Your task to perform on an android device: check google app version Image 0: 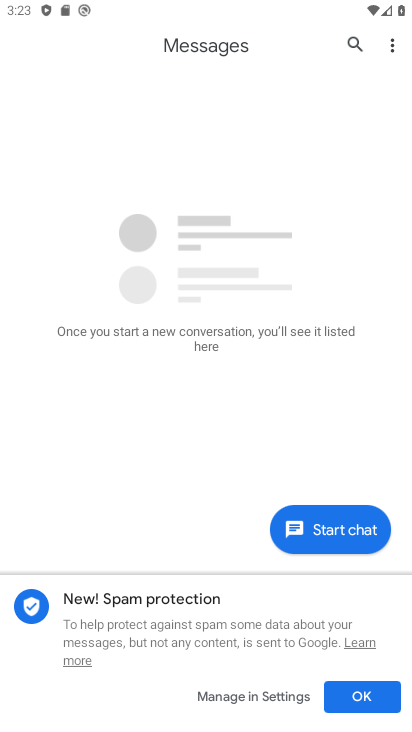
Step 0: press home button
Your task to perform on an android device: check google app version Image 1: 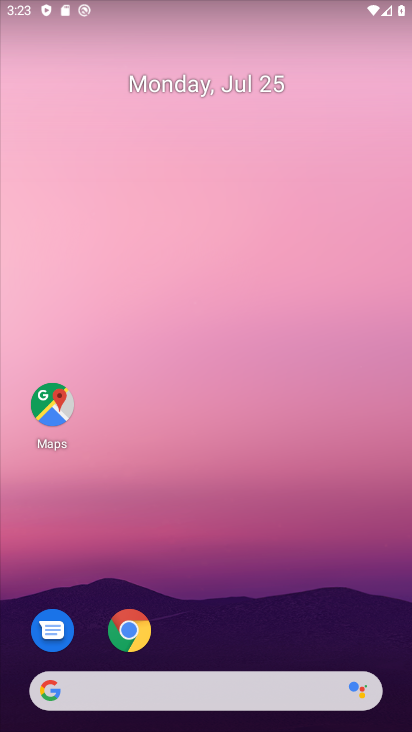
Step 1: click (56, 683)
Your task to perform on an android device: check google app version Image 2: 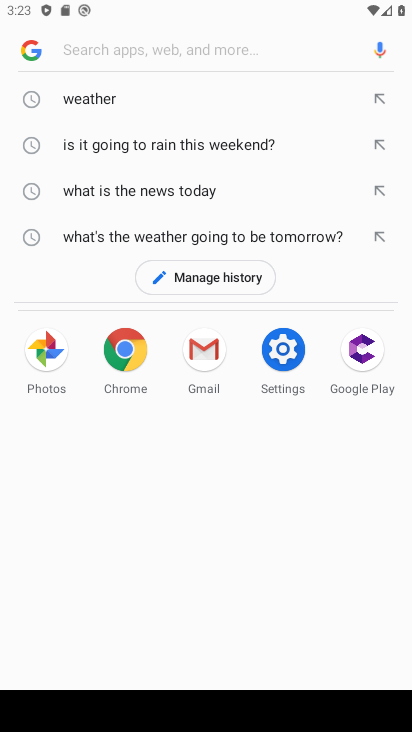
Step 2: click (29, 53)
Your task to perform on an android device: check google app version Image 3: 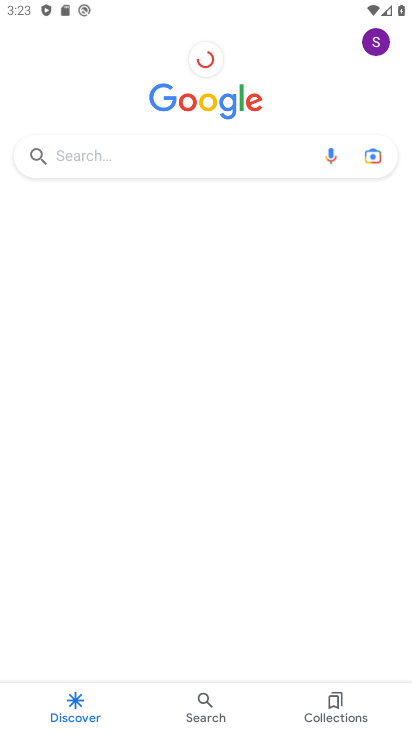
Step 3: click (378, 40)
Your task to perform on an android device: check google app version Image 4: 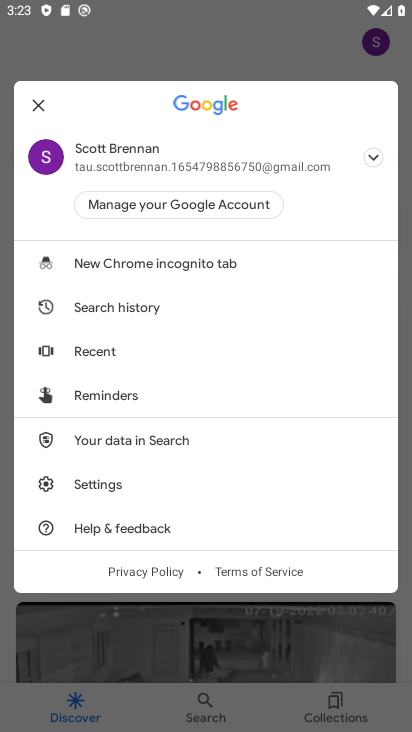
Step 4: click (99, 481)
Your task to perform on an android device: check google app version Image 5: 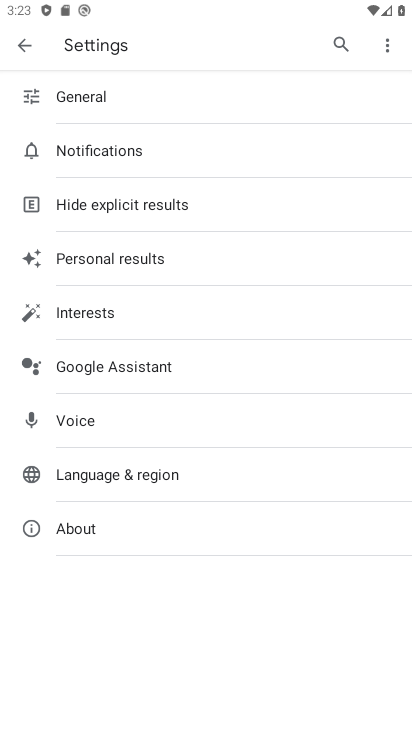
Step 5: click (88, 530)
Your task to perform on an android device: check google app version Image 6: 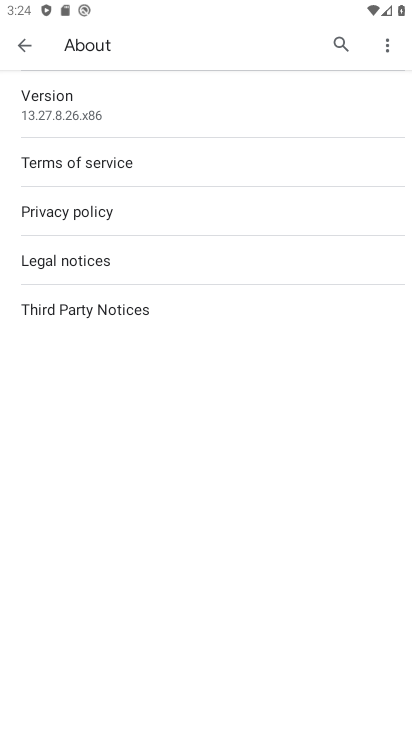
Step 6: task complete